Your task to perform on an android device: Open Google Image 0: 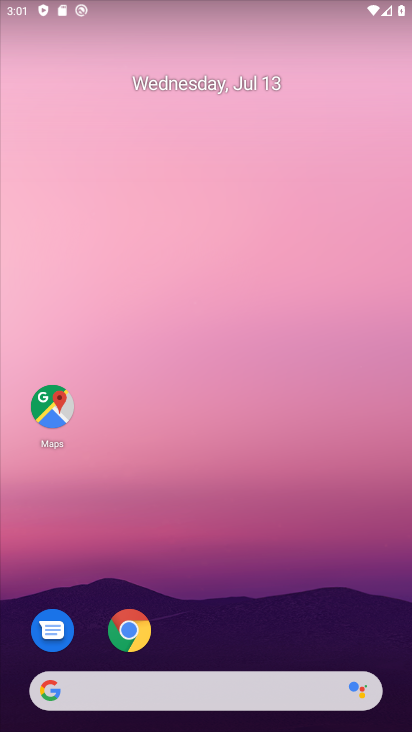
Step 0: drag from (170, 678) to (168, 357)
Your task to perform on an android device: Open Google Image 1: 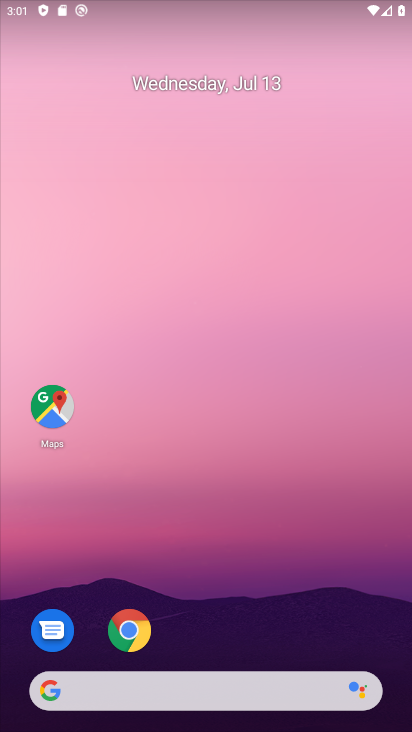
Step 1: drag from (184, 546) to (184, 381)
Your task to perform on an android device: Open Google Image 2: 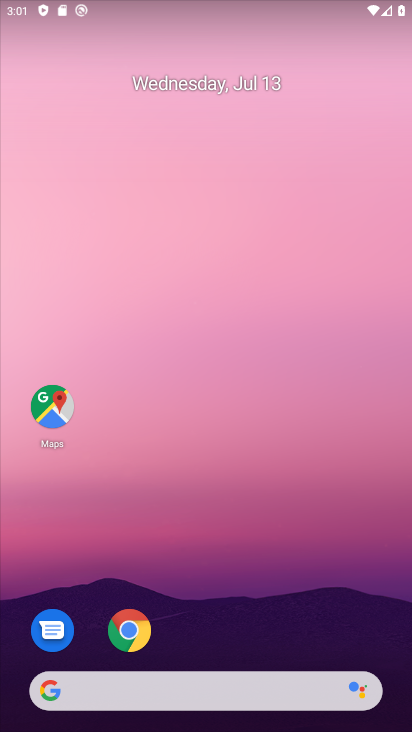
Step 2: drag from (213, 610) to (215, 400)
Your task to perform on an android device: Open Google Image 3: 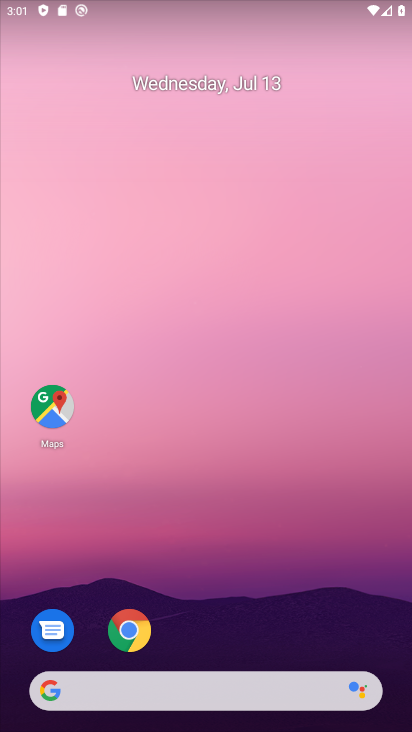
Step 3: drag from (183, 640) to (183, 89)
Your task to perform on an android device: Open Google Image 4: 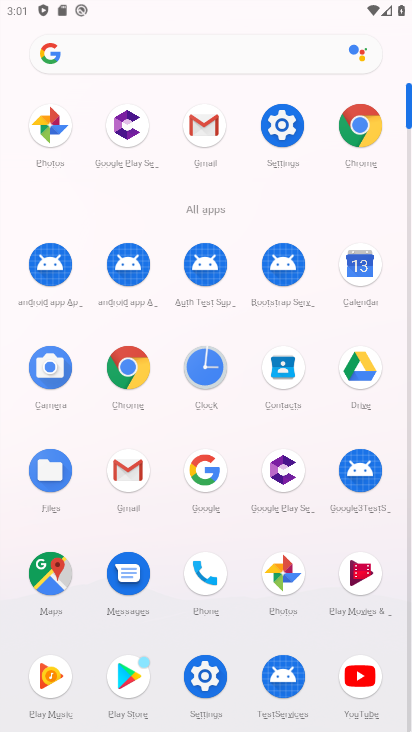
Step 4: click (203, 483)
Your task to perform on an android device: Open Google Image 5: 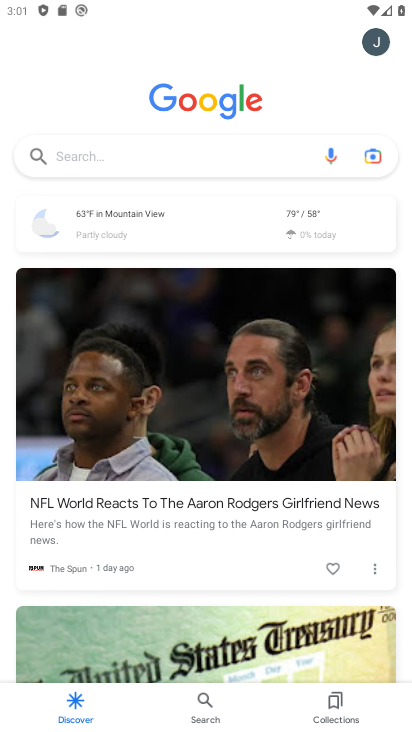
Step 5: task complete